Your task to perform on an android device: open sync settings in chrome Image 0: 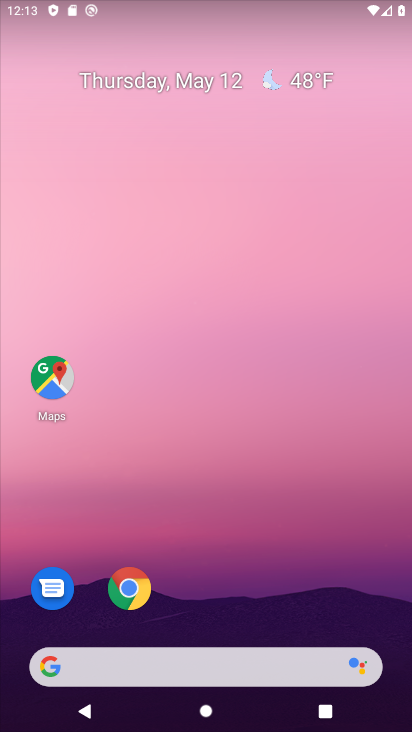
Step 0: drag from (329, 585) to (174, 113)
Your task to perform on an android device: open sync settings in chrome Image 1: 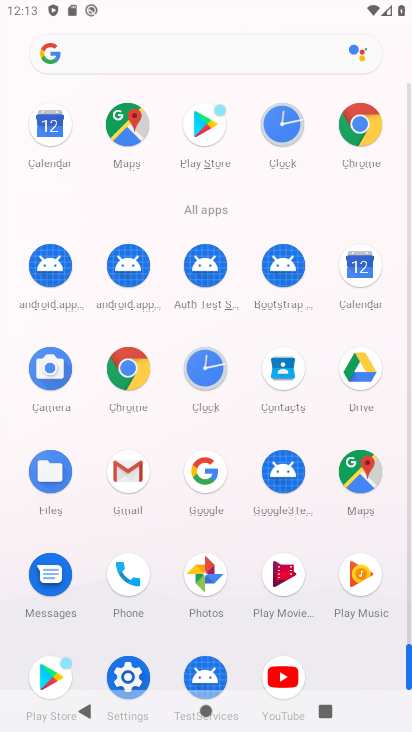
Step 1: click (354, 116)
Your task to perform on an android device: open sync settings in chrome Image 2: 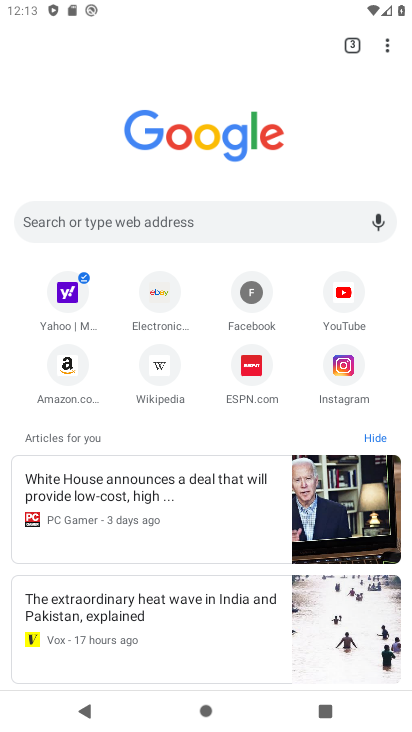
Step 2: drag from (384, 45) to (236, 381)
Your task to perform on an android device: open sync settings in chrome Image 3: 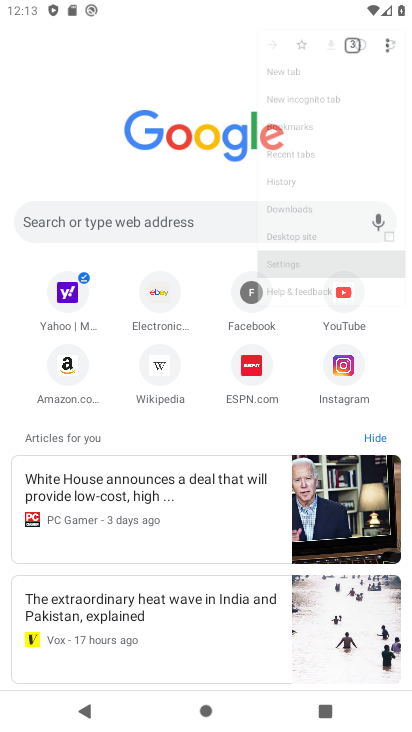
Step 3: click (237, 380)
Your task to perform on an android device: open sync settings in chrome Image 4: 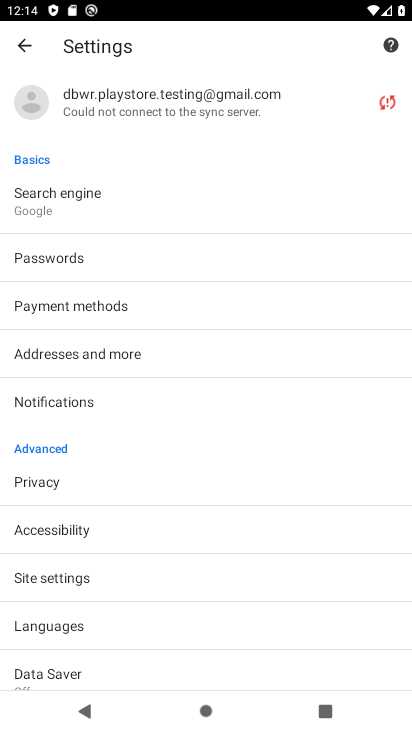
Step 4: click (53, 578)
Your task to perform on an android device: open sync settings in chrome Image 5: 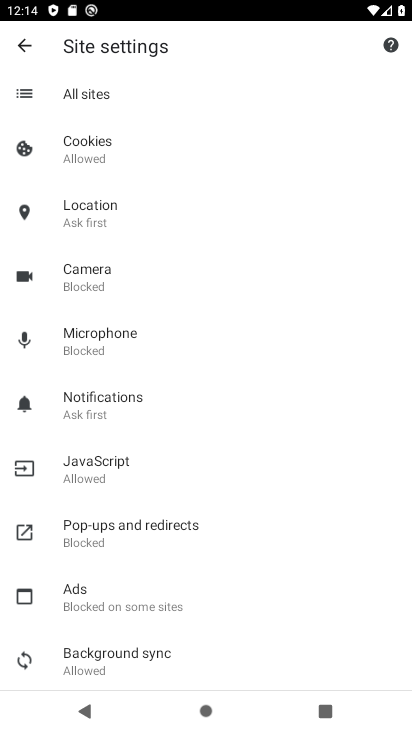
Step 5: click (83, 653)
Your task to perform on an android device: open sync settings in chrome Image 6: 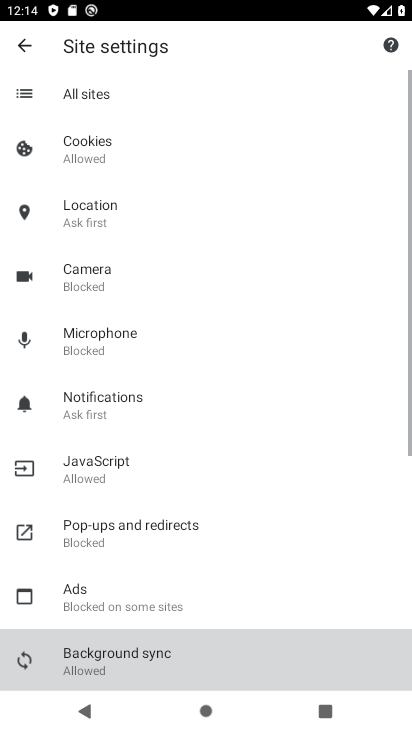
Step 6: click (82, 653)
Your task to perform on an android device: open sync settings in chrome Image 7: 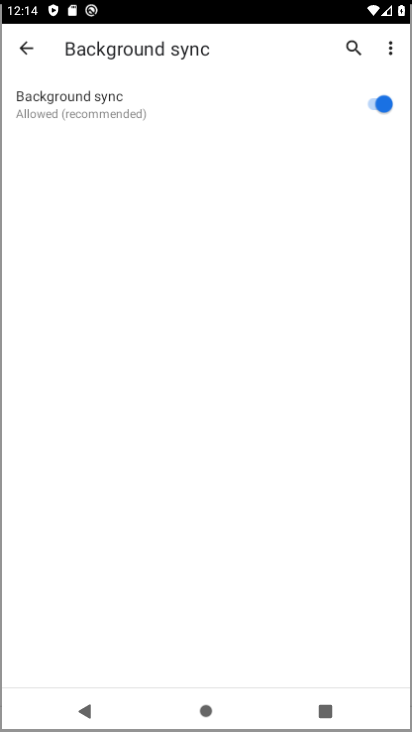
Step 7: click (83, 645)
Your task to perform on an android device: open sync settings in chrome Image 8: 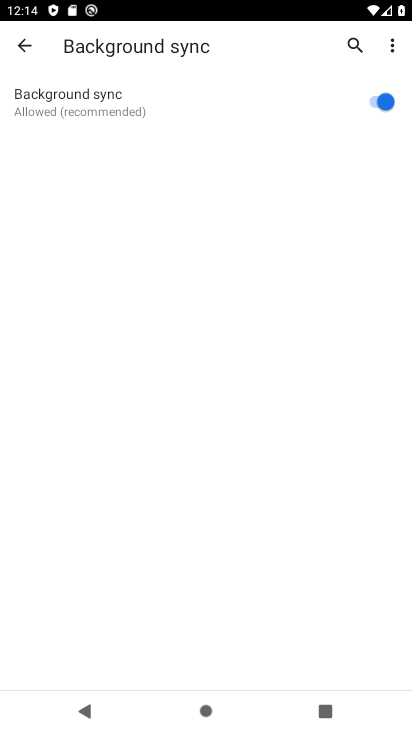
Step 8: task complete